Your task to perform on an android device: turn on data saver in the chrome app Image 0: 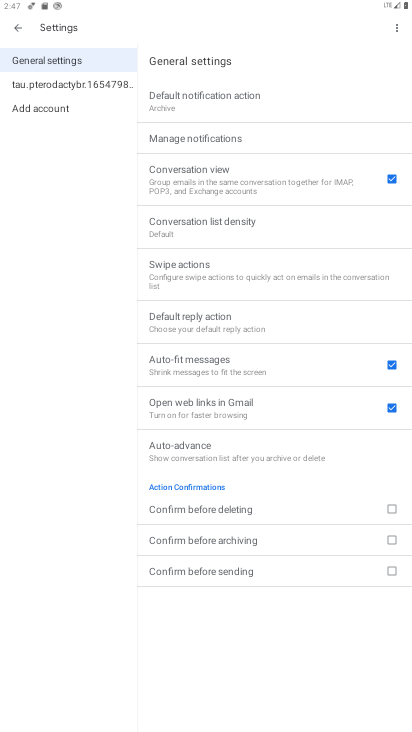
Step 0: press home button
Your task to perform on an android device: turn on data saver in the chrome app Image 1: 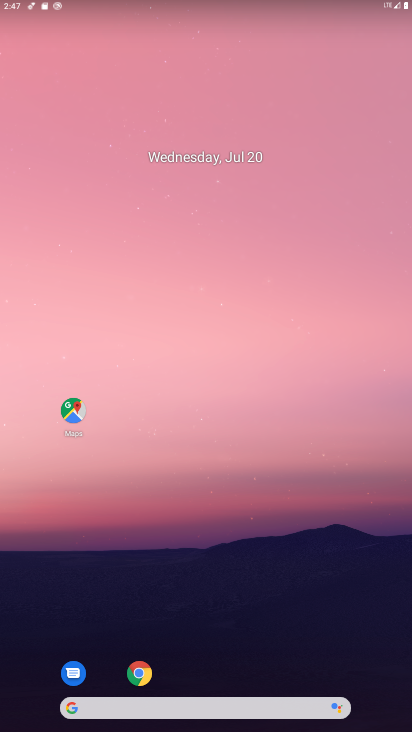
Step 1: click (148, 677)
Your task to perform on an android device: turn on data saver in the chrome app Image 2: 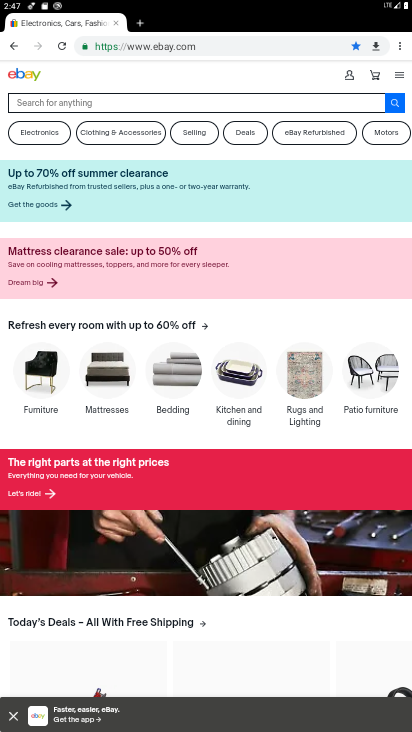
Step 2: click (397, 40)
Your task to perform on an android device: turn on data saver in the chrome app Image 3: 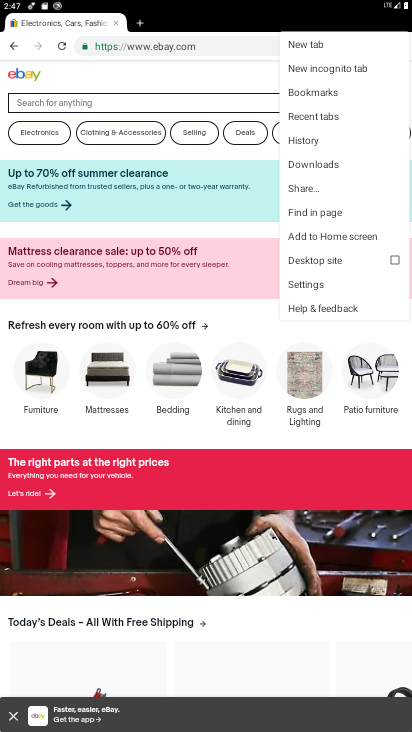
Step 3: click (306, 284)
Your task to perform on an android device: turn on data saver in the chrome app Image 4: 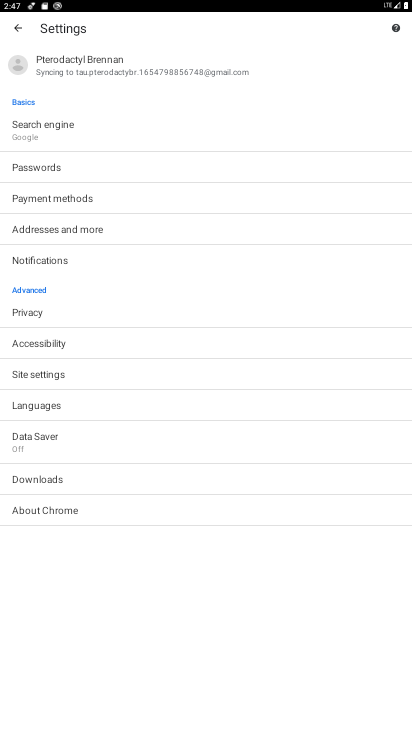
Step 4: click (55, 437)
Your task to perform on an android device: turn on data saver in the chrome app Image 5: 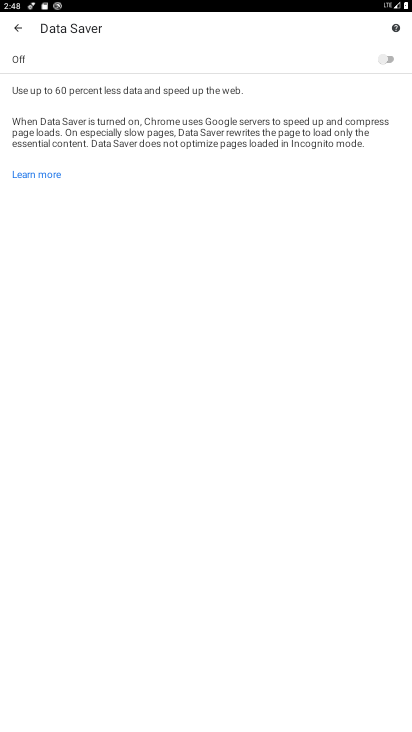
Step 5: click (351, 58)
Your task to perform on an android device: turn on data saver in the chrome app Image 6: 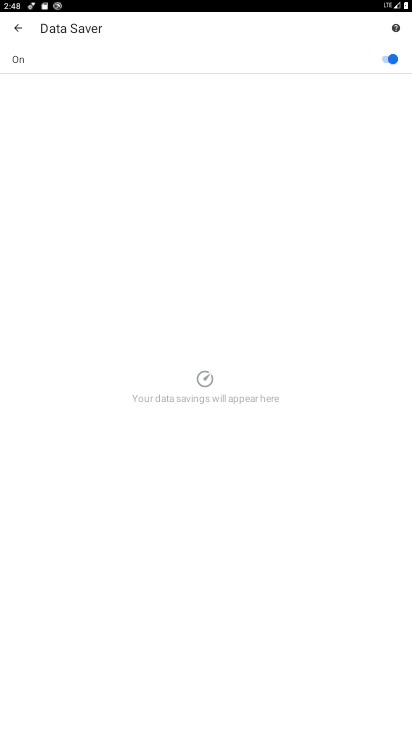
Step 6: task complete